Your task to perform on an android device: turn off sleep mode Image 0: 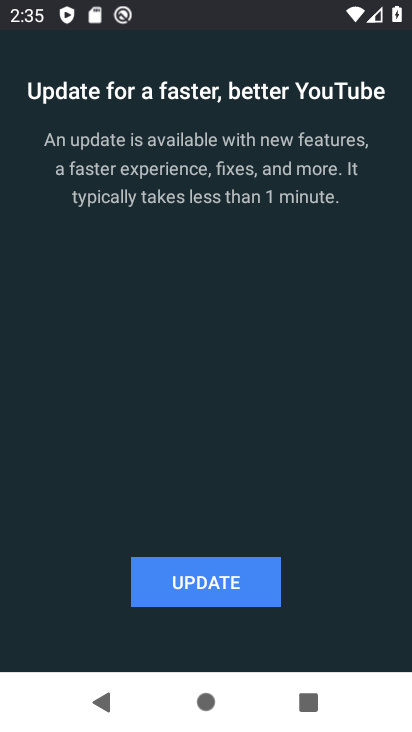
Step 0: drag from (162, 632) to (322, 52)
Your task to perform on an android device: turn off sleep mode Image 1: 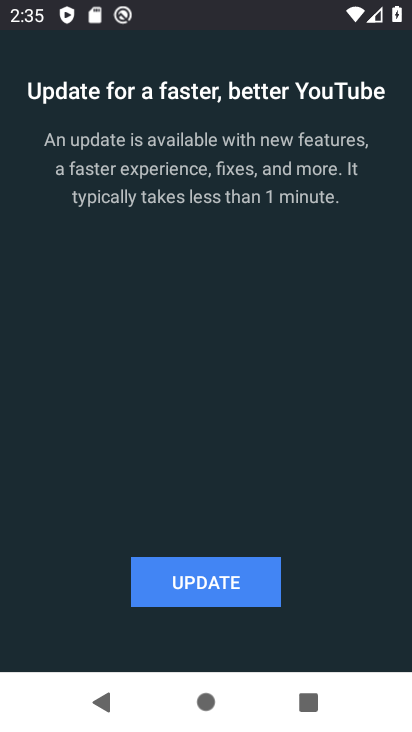
Step 1: press home button
Your task to perform on an android device: turn off sleep mode Image 2: 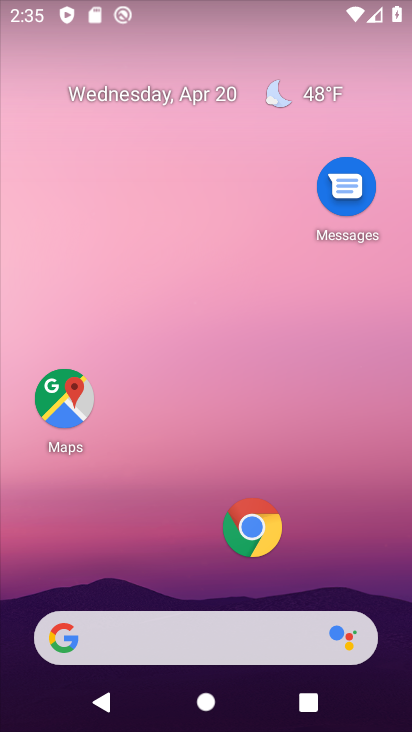
Step 2: drag from (161, 641) to (281, 90)
Your task to perform on an android device: turn off sleep mode Image 3: 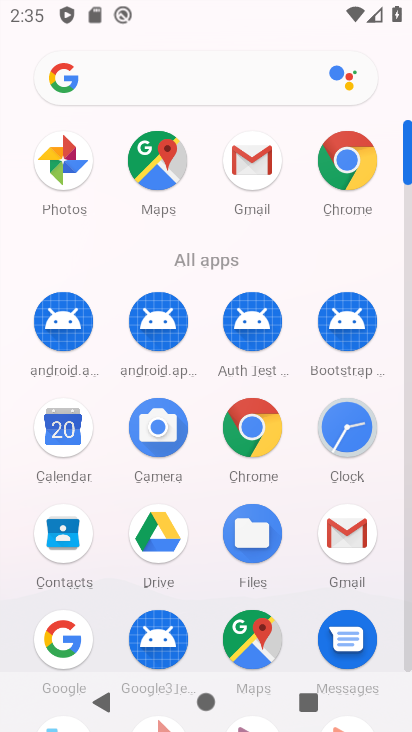
Step 3: drag from (206, 587) to (344, 153)
Your task to perform on an android device: turn off sleep mode Image 4: 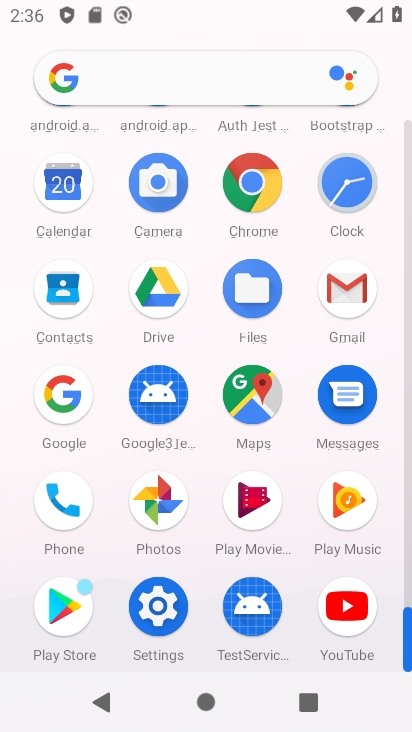
Step 4: click (166, 616)
Your task to perform on an android device: turn off sleep mode Image 5: 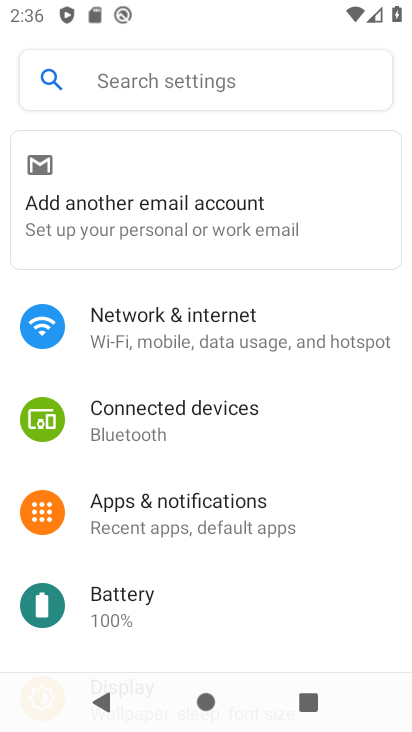
Step 5: drag from (206, 565) to (326, 176)
Your task to perform on an android device: turn off sleep mode Image 6: 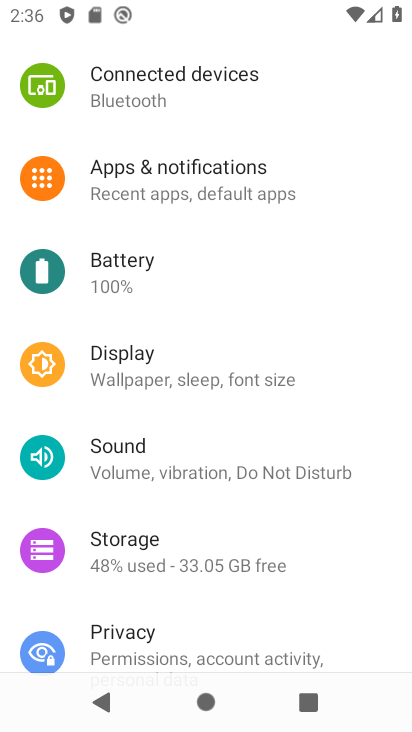
Step 6: click (166, 380)
Your task to perform on an android device: turn off sleep mode Image 7: 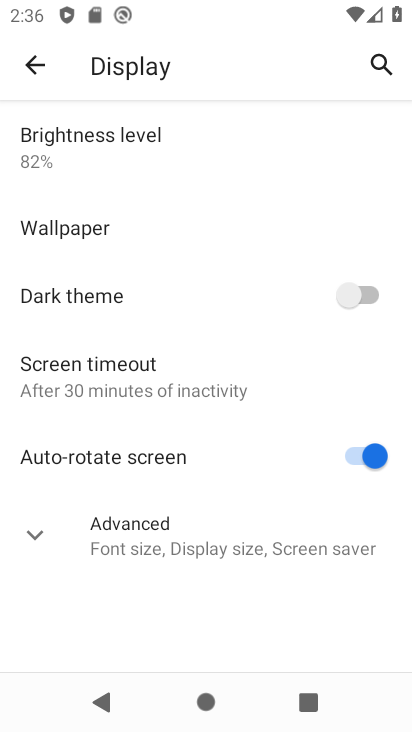
Step 7: task complete